Your task to perform on an android device: Set the phone to "Do not disturb". Image 0: 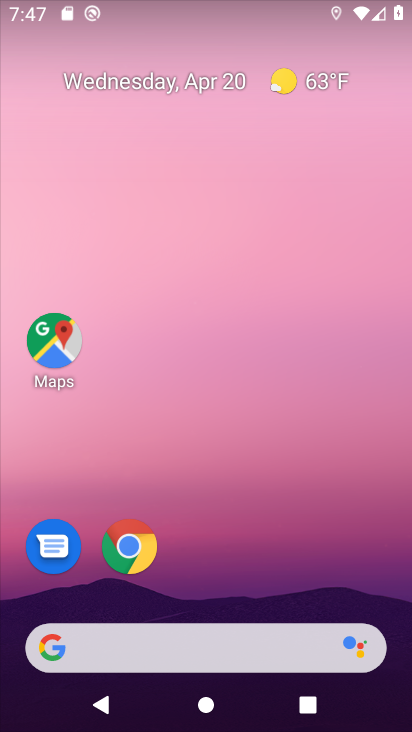
Step 0: drag from (357, 79) to (272, 90)
Your task to perform on an android device: Set the phone to "Do not disturb". Image 1: 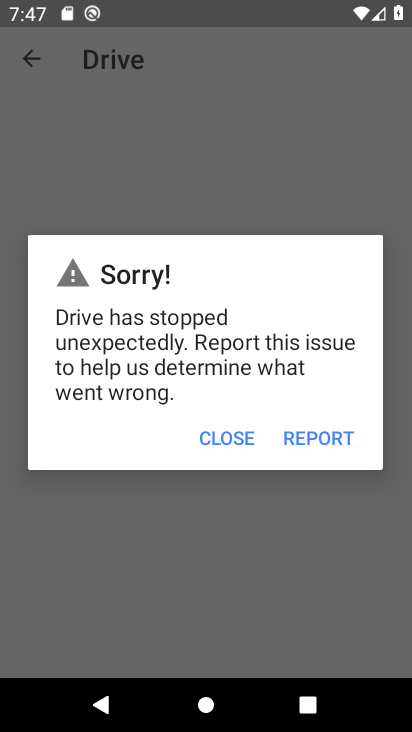
Step 1: press home button
Your task to perform on an android device: Set the phone to "Do not disturb". Image 2: 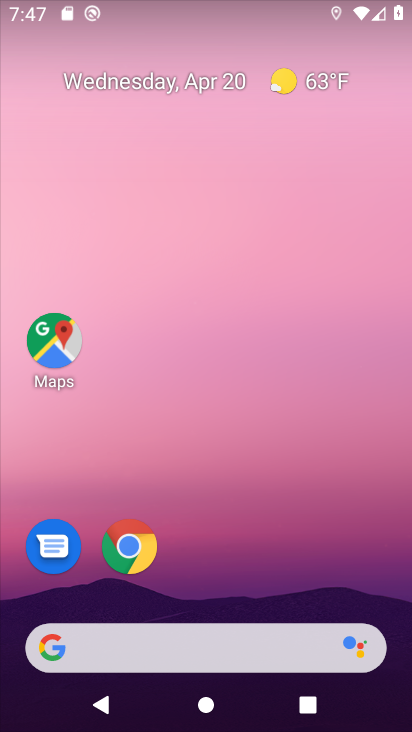
Step 2: drag from (280, 545) to (273, 104)
Your task to perform on an android device: Set the phone to "Do not disturb". Image 3: 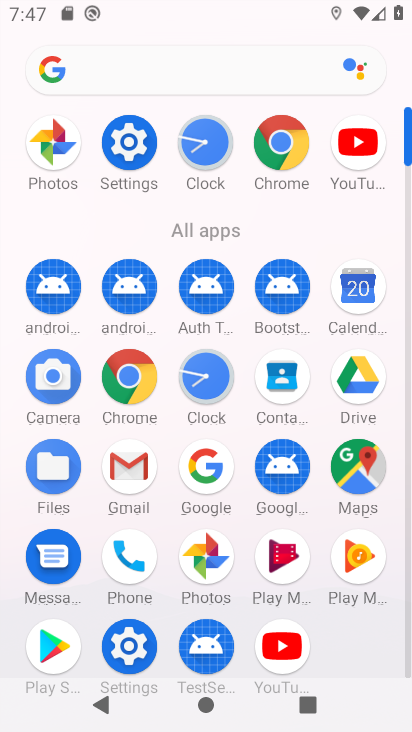
Step 3: click (140, 140)
Your task to perform on an android device: Set the phone to "Do not disturb". Image 4: 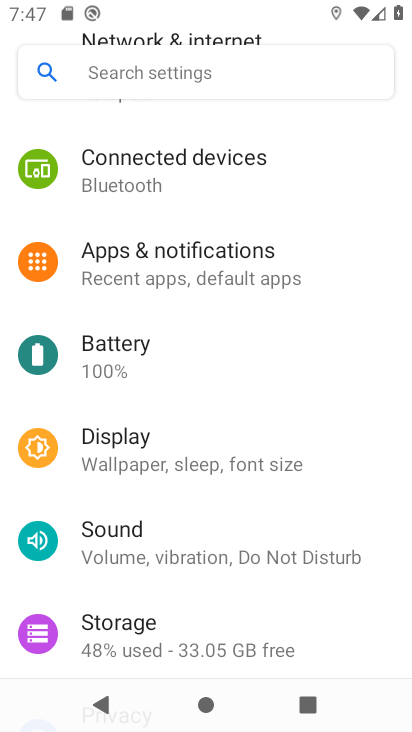
Step 4: click (236, 541)
Your task to perform on an android device: Set the phone to "Do not disturb". Image 5: 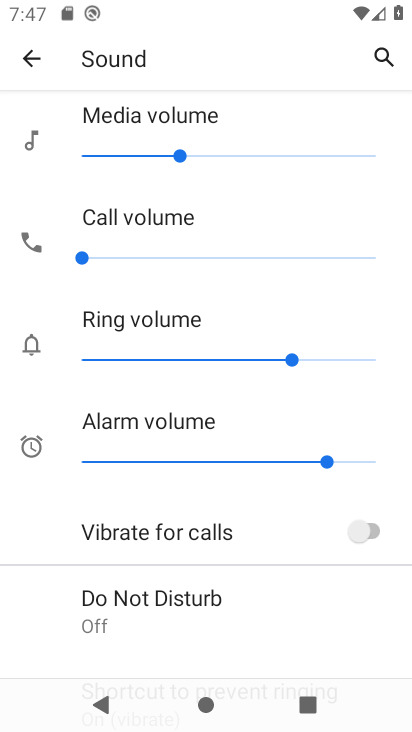
Step 5: click (239, 617)
Your task to perform on an android device: Set the phone to "Do not disturb". Image 6: 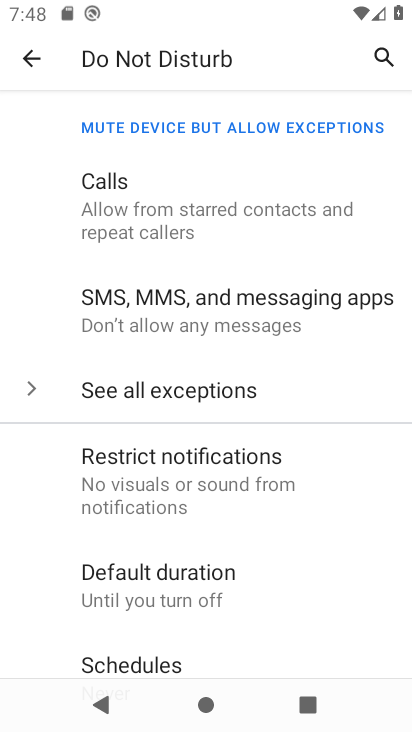
Step 6: drag from (250, 575) to (241, 156)
Your task to perform on an android device: Set the phone to "Do not disturb". Image 7: 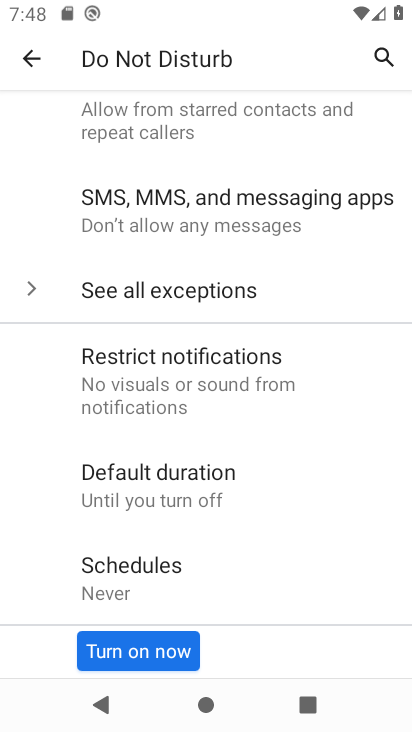
Step 7: click (159, 647)
Your task to perform on an android device: Set the phone to "Do not disturb". Image 8: 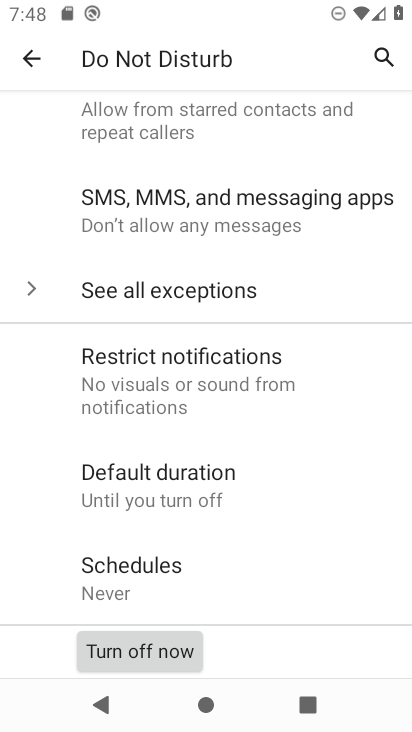
Step 8: task complete